Your task to perform on an android device: Open the calendar and show me this week's events? Image 0: 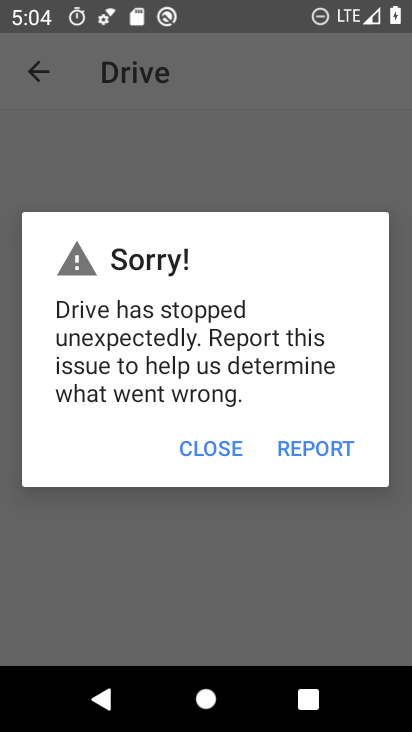
Step 0: drag from (214, 489) to (299, 110)
Your task to perform on an android device: Open the calendar and show me this week's events? Image 1: 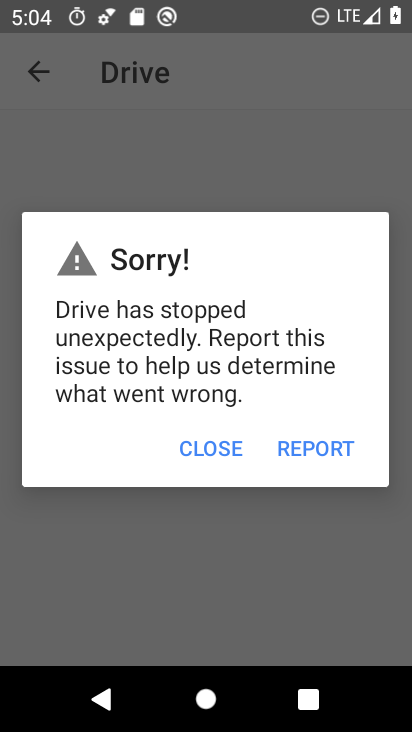
Step 1: press back button
Your task to perform on an android device: Open the calendar and show me this week's events? Image 2: 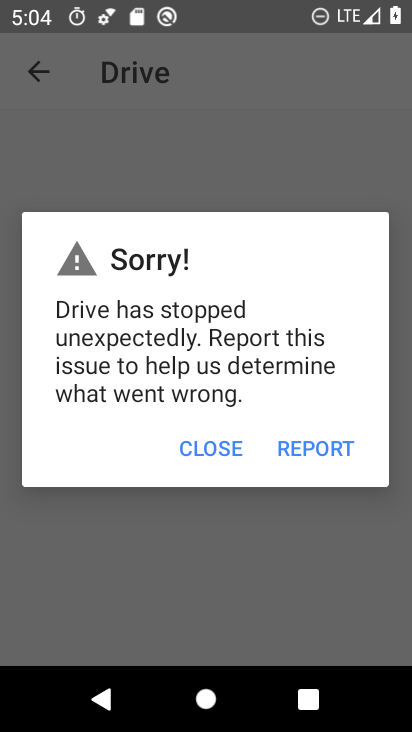
Step 2: press back button
Your task to perform on an android device: Open the calendar and show me this week's events? Image 3: 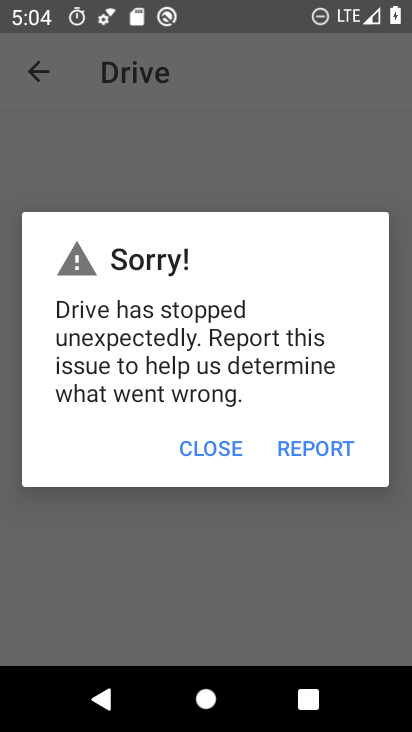
Step 3: press home button
Your task to perform on an android device: Open the calendar and show me this week's events? Image 4: 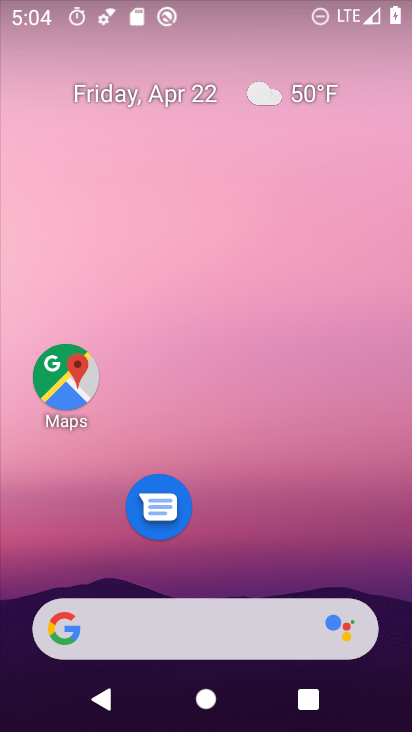
Step 4: drag from (168, 520) to (279, 52)
Your task to perform on an android device: Open the calendar and show me this week's events? Image 5: 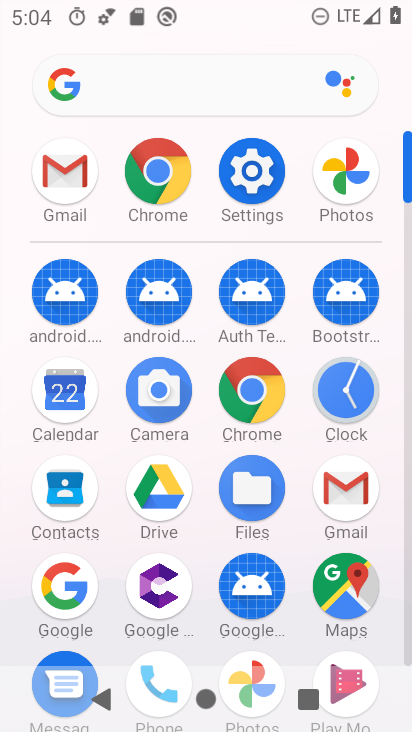
Step 5: click (71, 388)
Your task to perform on an android device: Open the calendar and show me this week's events? Image 6: 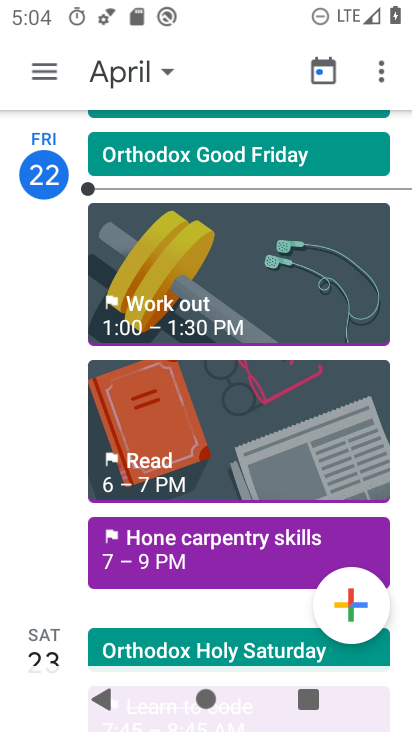
Step 6: drag from (214, 586) to (298, 102)
Your task to perform on an android device: Open the calendar and show me this week's events? Image 7: 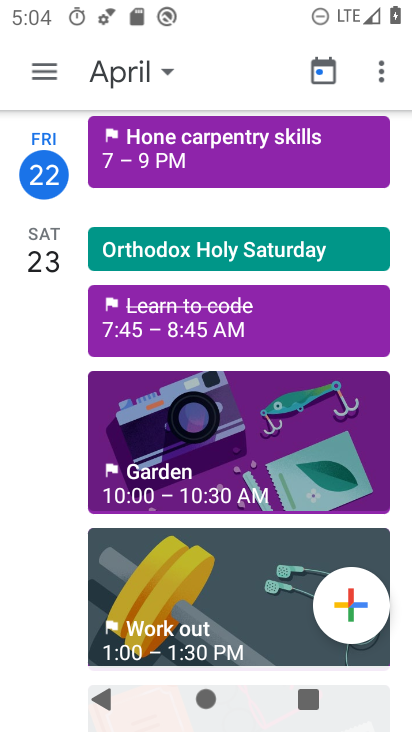
Step 7: drag from (223, 584) to (319, 96)
Your task to perform on an android device: Open the calendar and show me this week's events? Image 8: 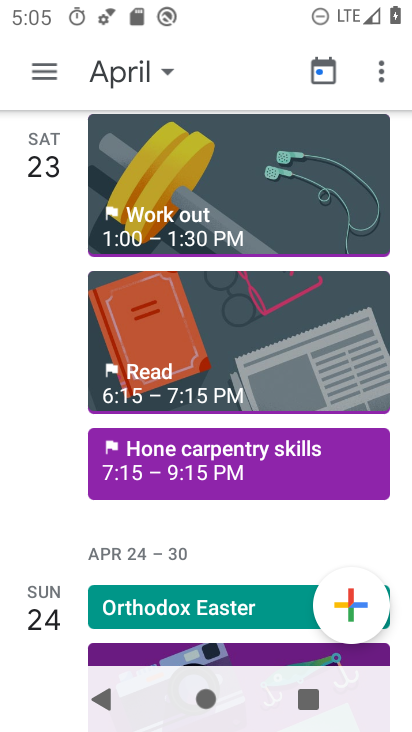
Step 8: click (215, 467)
Your task to perform on an android device: Open the calendar and show me this week's events? Image 9: 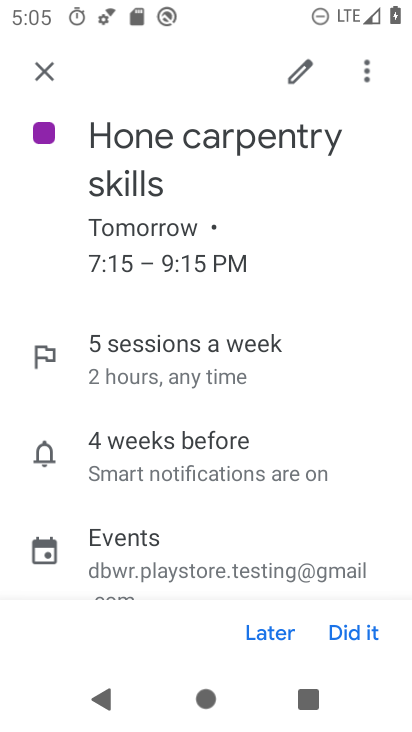
Step 9: task complete